Your task to perform on an android device: Open settings Image 0: 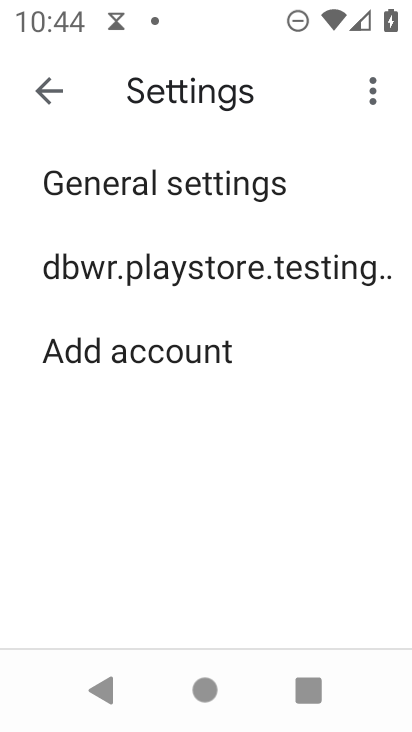
Step 0: press home button
Your task to perform on an android device: Open settings Image 1: 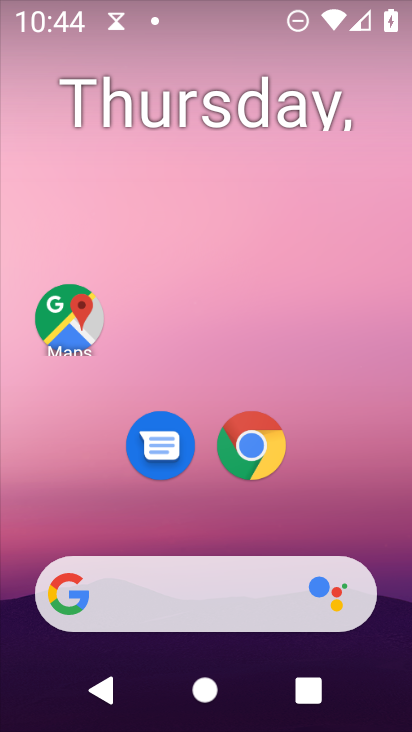
Step 1: drag from (226, 645) to (227, 17)
Your task to perform on an android device: Open settings Image 2: 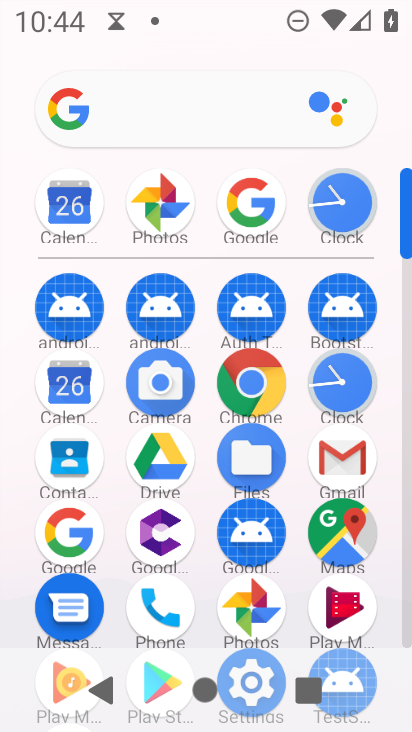
Step 2: click (253, 665)
Your task to perform on an android device: Open settings Image 3: 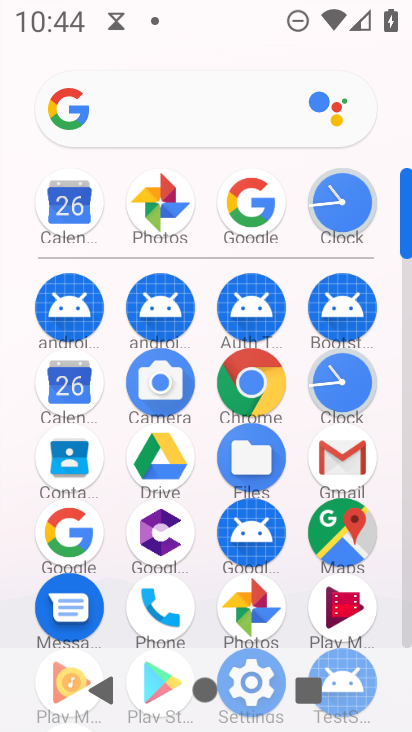
Step 3: drag from (299, 641) to (285, 150)
Your task to perform on an android device: Open settings Image 4: 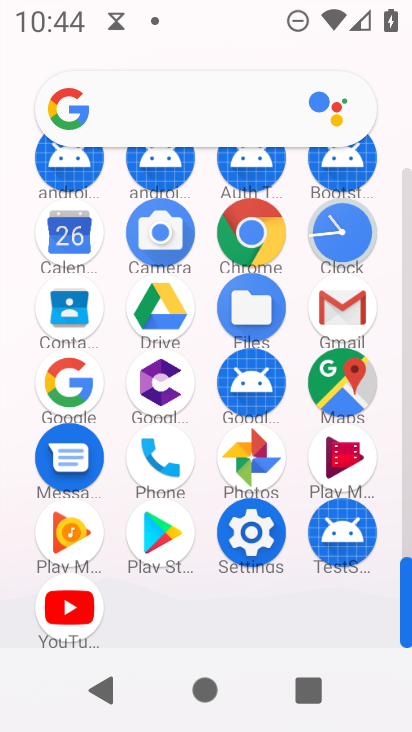
Step 4: click (251, 528)
Your task to perform on an android device: Open settings Image 5: 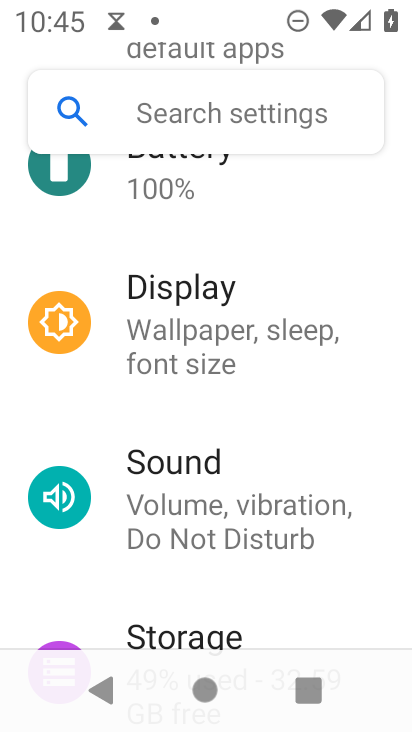
Step 5: task complete